Your task to perform on an android device: open wifi settings Image 0: 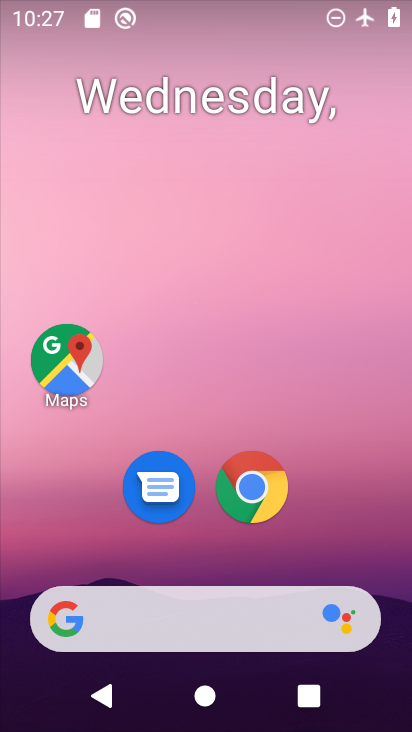
Step 0: drag from (364, 528) to (148, 43)
Your task to perform on an android device: open wifi settings Image 1: 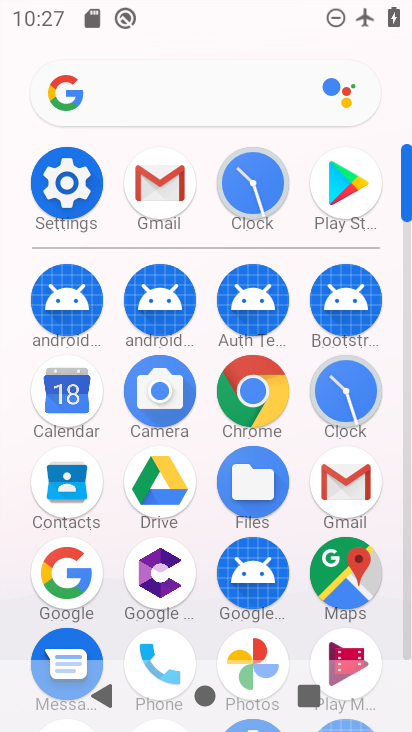
Step 1: click (62, 180)
Your task to perform on an android device: open wifi settings Image 2: 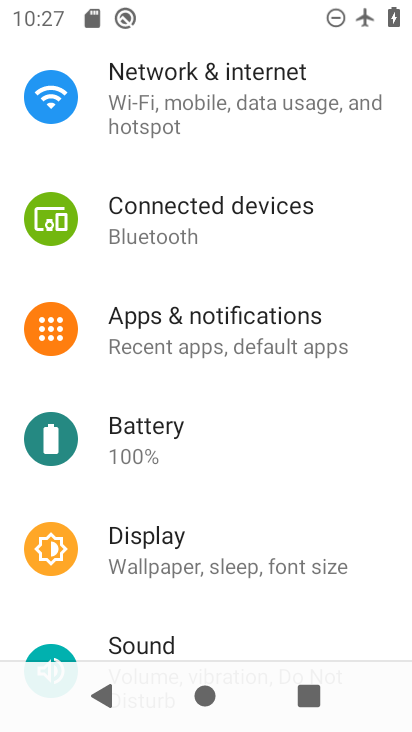
Step 2: drag from (187, 162) to (311, 581)
Your task to perform on an android device: open wifi settings Image 3: 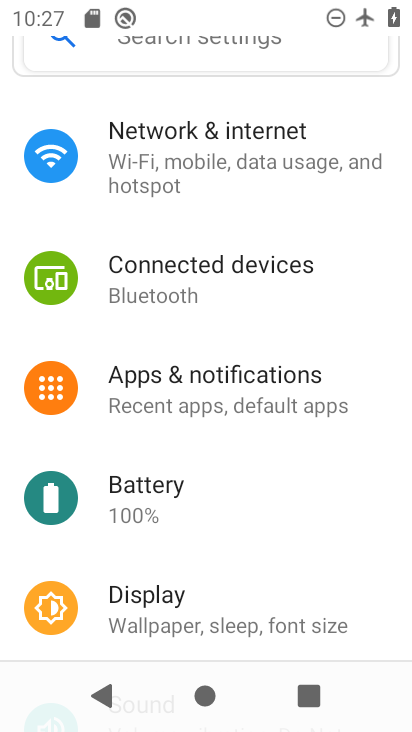
Step 3: click (182, 134)
Your task to perform on an android device: open wifi settings Image 4: 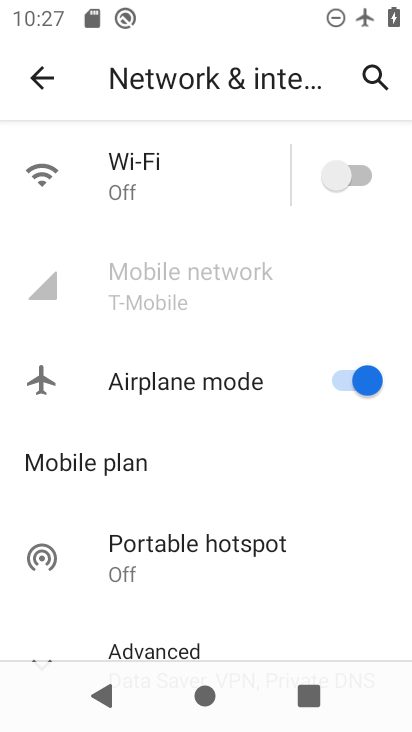
Step 4: click (140, 164)
Your task to perform on an android device: open wifi settings Image 5: 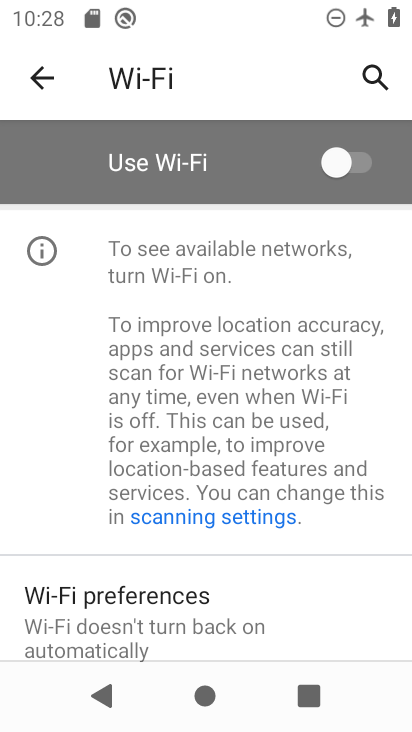
Step 5: task complete